Your task to perform on an android device: Go to Wikipedia Image 0: 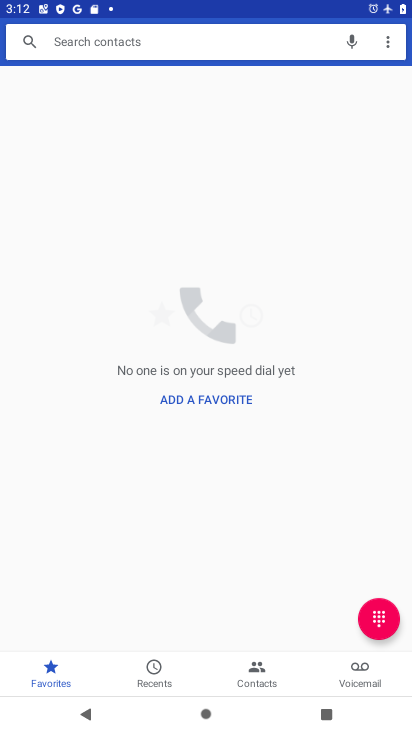
Step 0: press home button
Your task to perform on an android device: Go to Wikipedia Image 1: 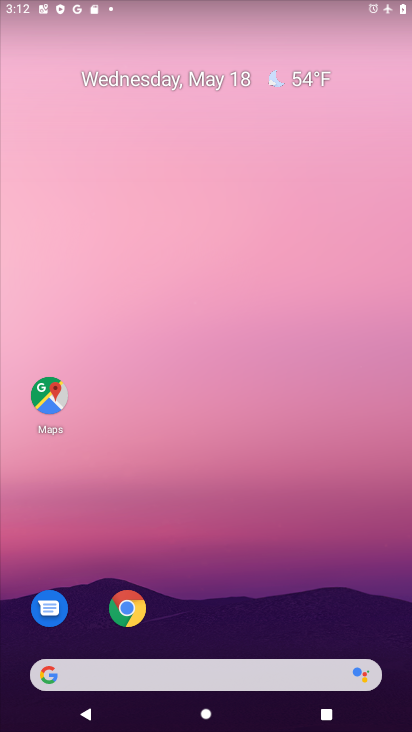
Step 1: click (130, 606)
Your task to perform on an android device: Go to Wikipedia Image 2: 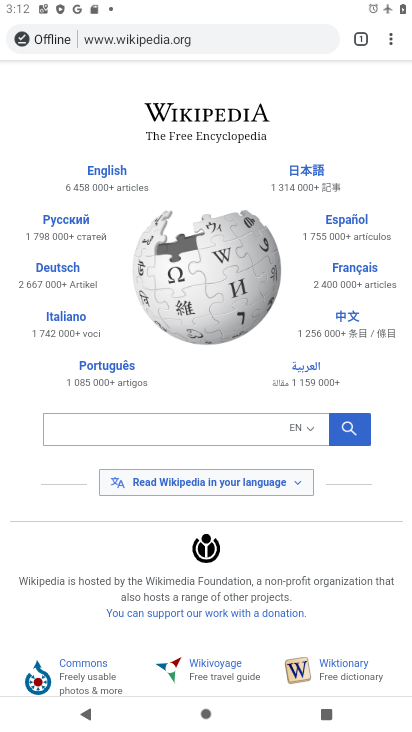
Step 2: task complete